Your task to perform on an android device: change timer sound Image 0: 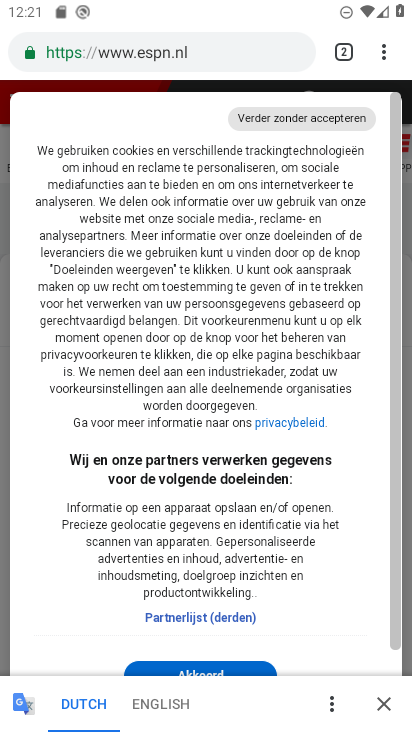
Step 0: press home button
Your task to perform on an android device: change timer sound Image 1: 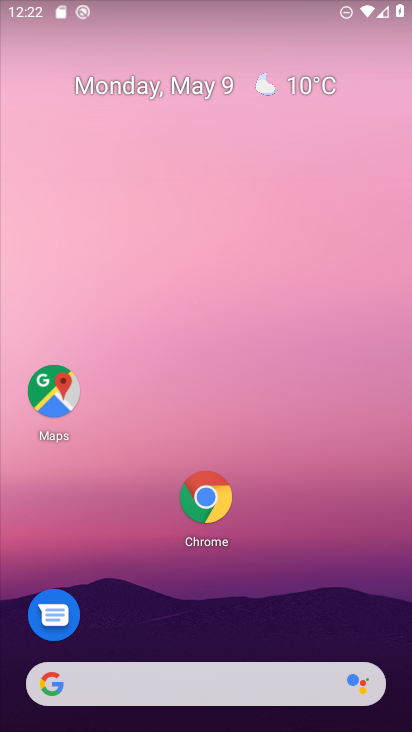
Step 1: drag from (310, 581) to (264, 64)
Your task to perform on an android device: change timer sound Image 2: 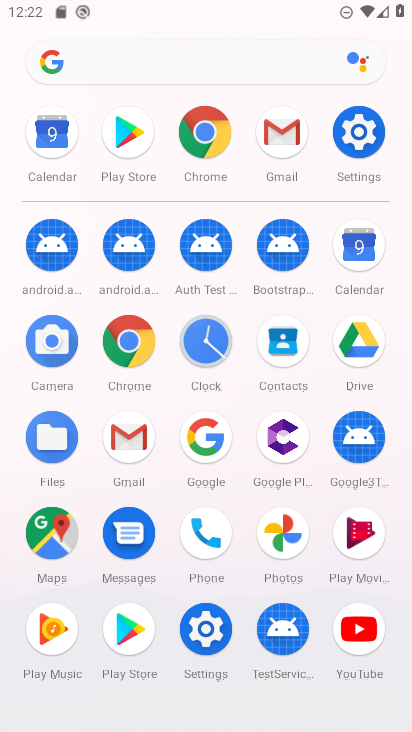
Step 2: click (217, 352)
Your task to perform on an android device: change timer sound Image 3: 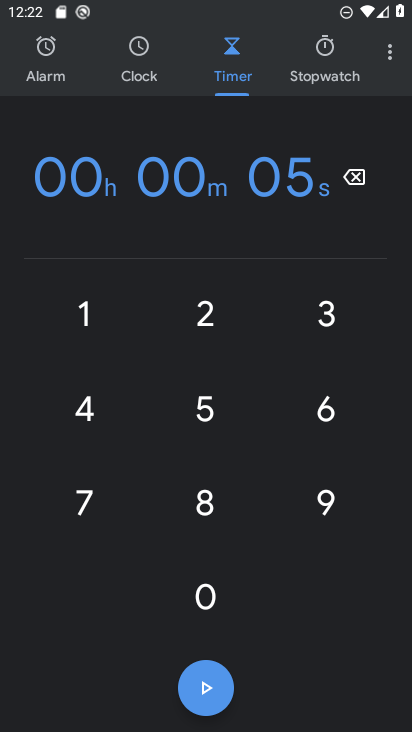
Step 3: click (392, 48)
Your task to perform on an android device: change timer sound Image 4: 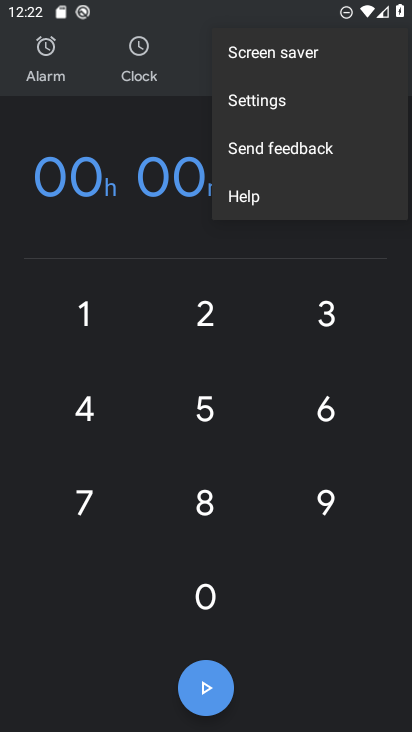
Step 4: click (273, 111)
Your task to perform on an android device: change timer sound Image 5: 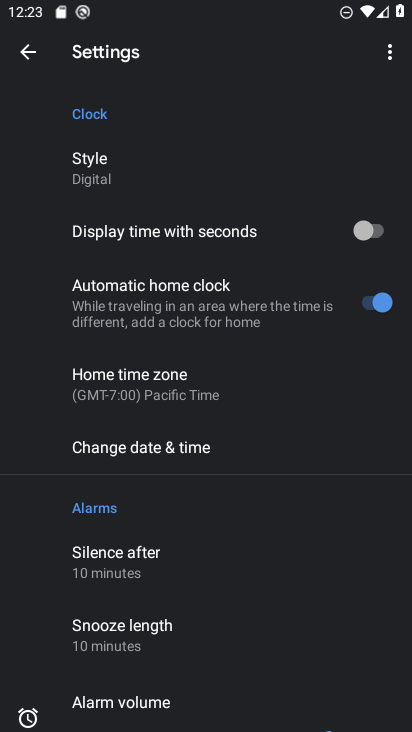
Step 5: drag from (184, 571) to (271, 160)
Your task to perform on an android device: change timer sound Image 6: 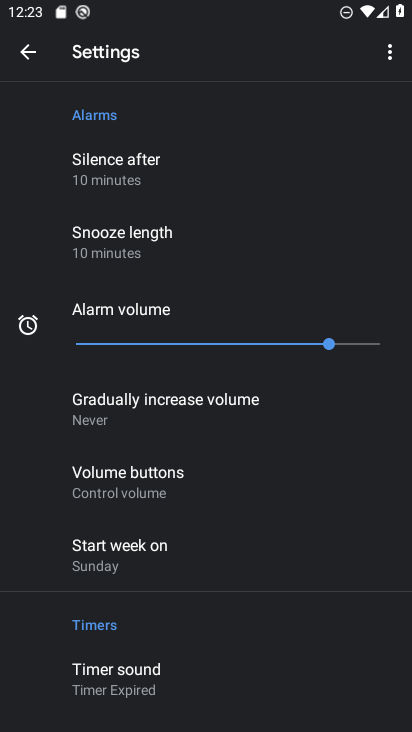
Step 6: click (156, 696)
Your task to perform on an android device: change timer sound Image 7: 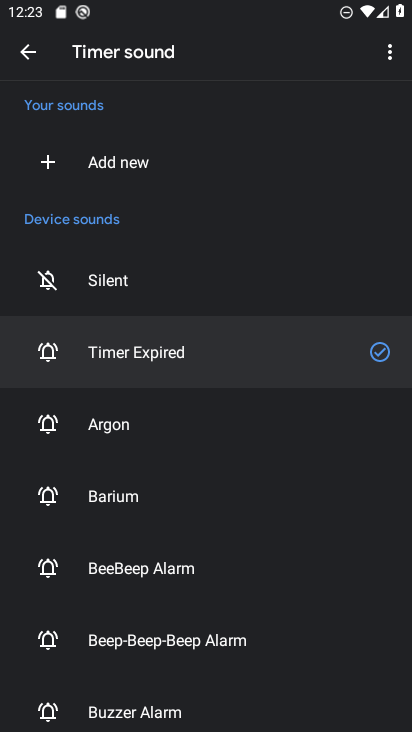
Step 7: click (128, 416)
Your task to perform on an android device: change timer sound Image 8: 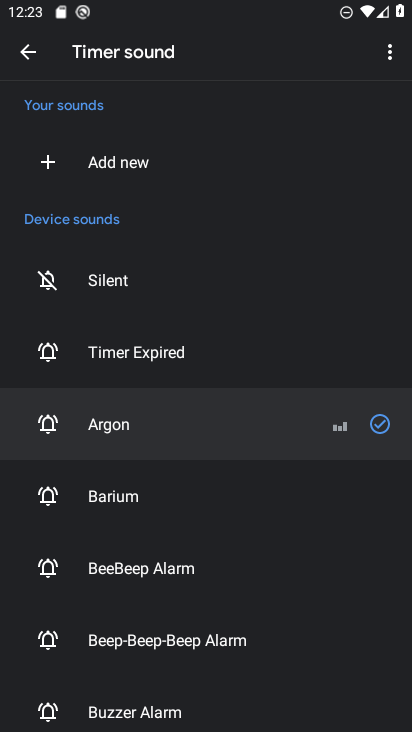
Step 8: task complete